Your task to perform on an android device: set the stopwatch Image 0: 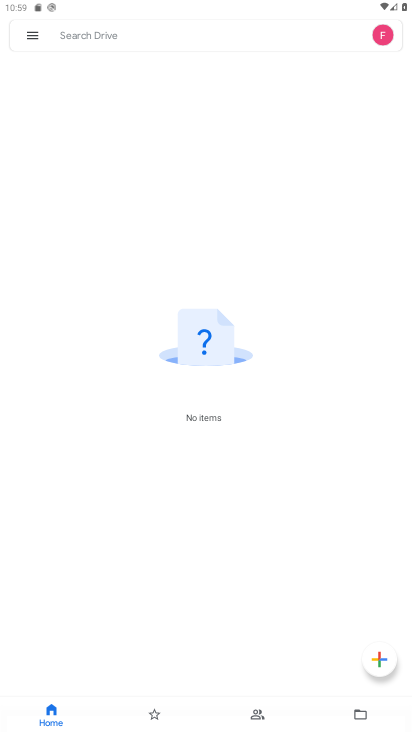
Step 0: press back button
Your task to perform on an android device: set the stopwatch Image 1: 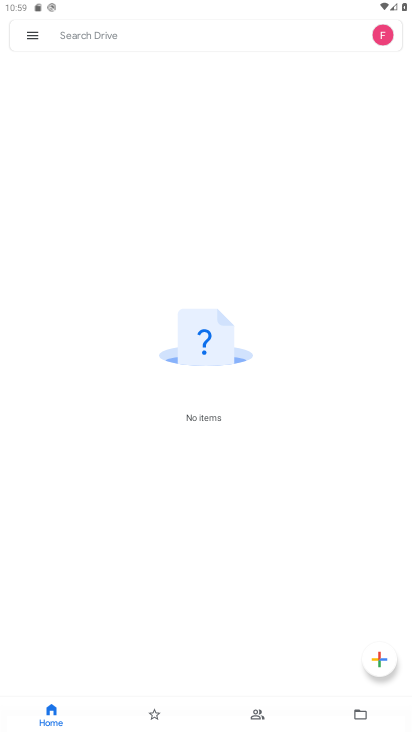
Step 1: press back button
Your task to perform on an android device: set the stopwatch Image 2: 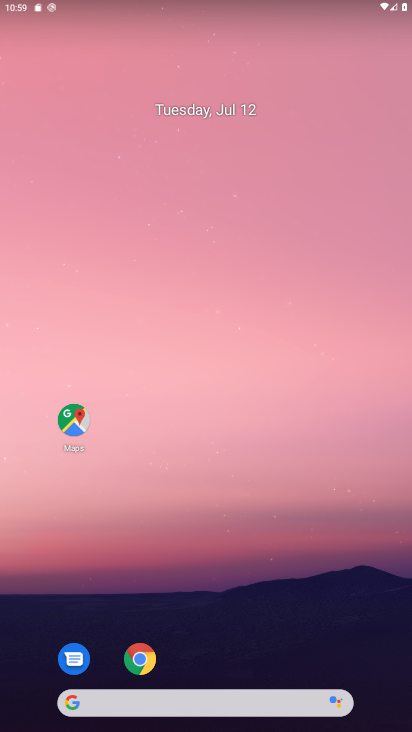
Step 2: press home button
Your task to perform on an android device: set the stopwatch Image 3: 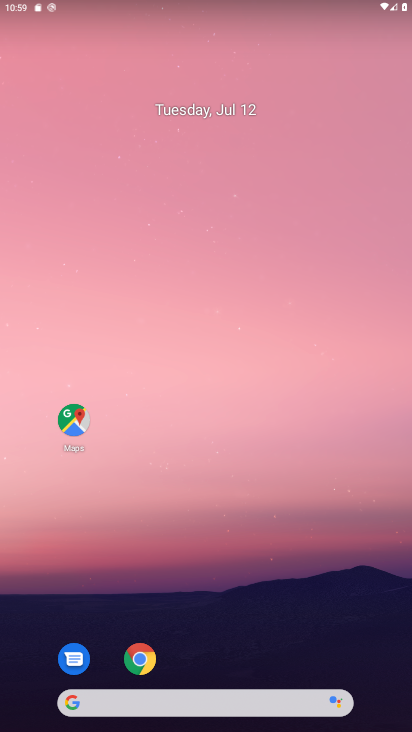
Step 3: press home button
Your task to perform on an android device: set the stopwatch Image 4: 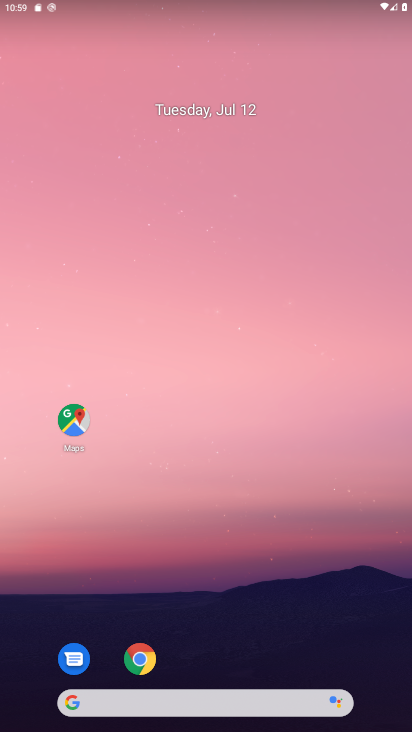
Step 4: drag from (266, 589) to (222, 203)
Your task to perform on an android device: set the stopwatch Image 5: 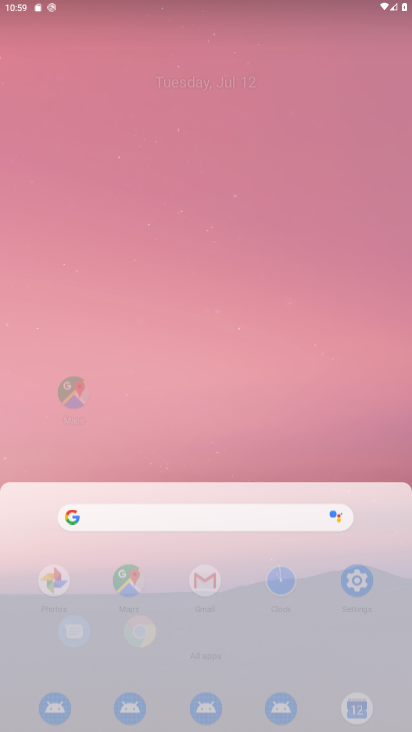
Step 5: drag from (219, 531) to (249, 135)
Your task to perform on an android device: set the stopwatch Image 6: 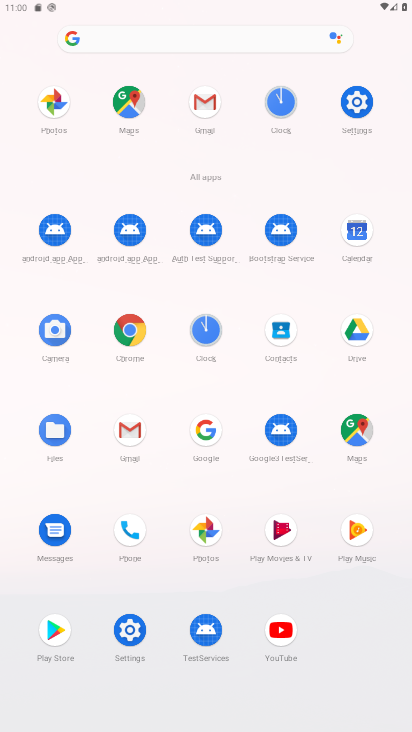
Step 6: click (196, 327)
Your task to perform on an android device: set the stopwatch Image 7: 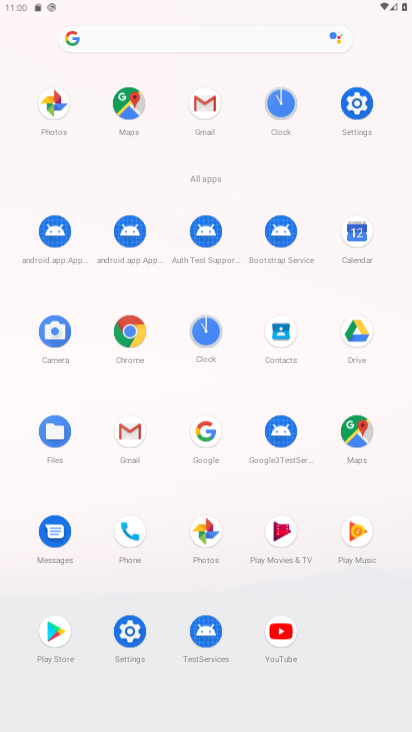
Step 7: click (206, 322)
Your task to perform on an android device: set the stopwatch Image 8: 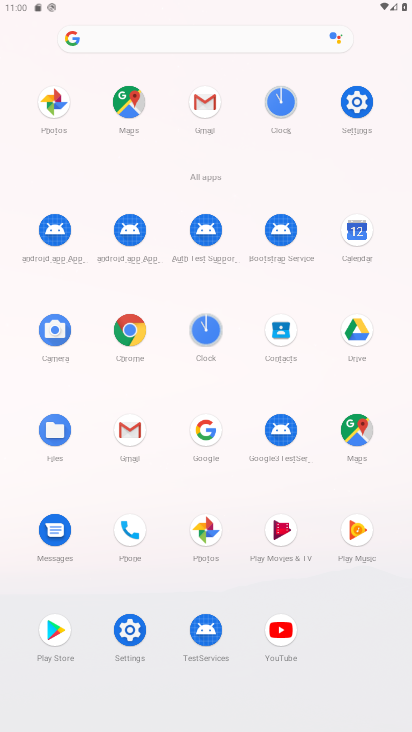
Step 8: click (204, 328)
Your task to perform on an android device: set the stopwatch Image 9: 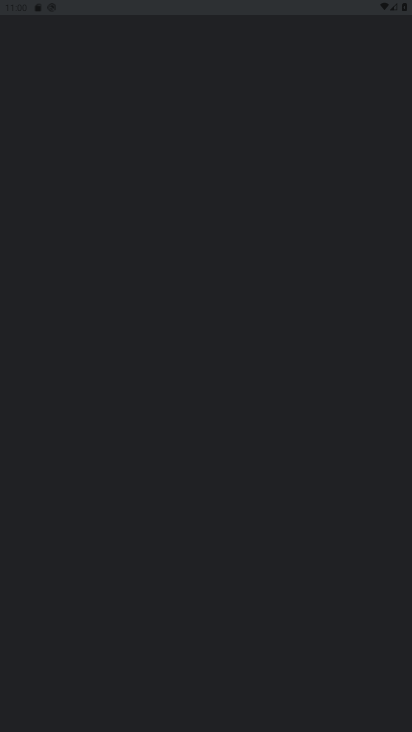
Step 9: click (202, 326)
Your task to perform on an android device: set the stopwatch Image 10: 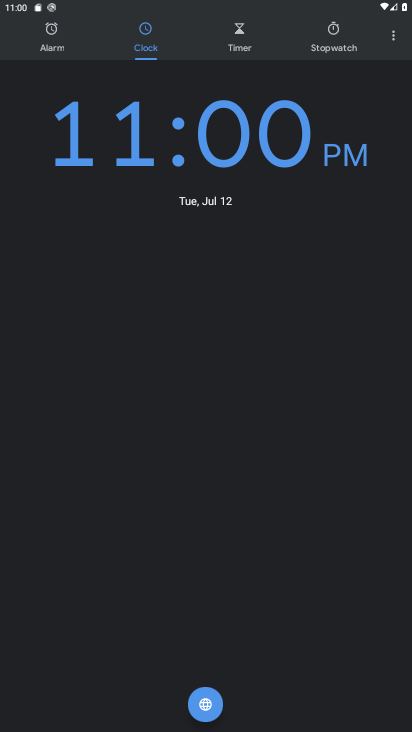
Step 10: click (211, 690)
Your task to perform on an android device: set the stopwatch Image 11: 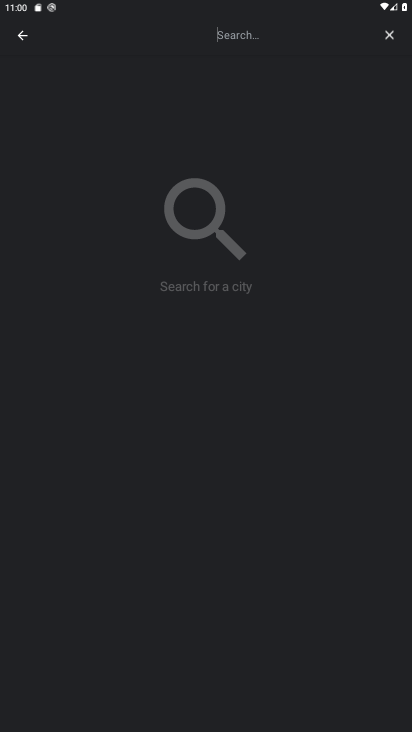
Step 11: drag from (208, 520) to (247, 185)
Your task to perform on an android device: set the stopwatch Image 12: 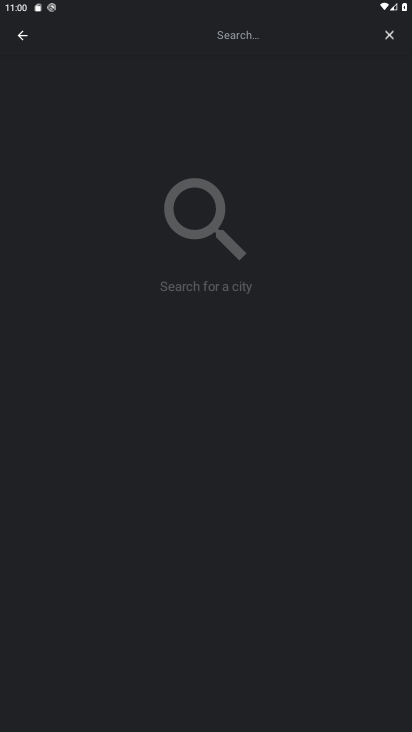
Step 12: drag from (265, 293) to (265, 223)
Your task to perform on an android device: set the stopwatch Image 13: 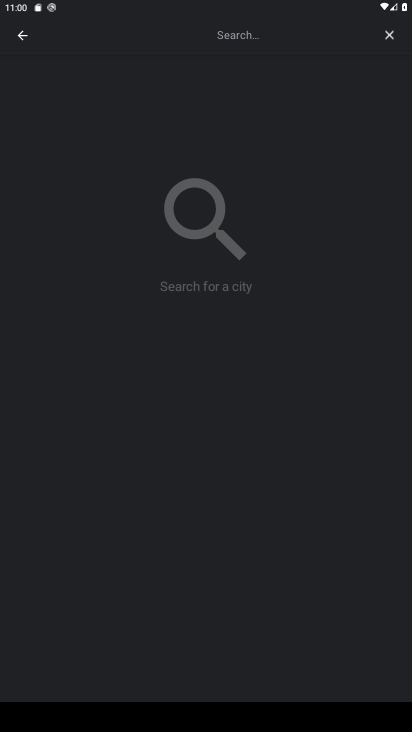
Step 13: drag from (242, 278) to (231, 157)
Your task to perform on an android device: set the stopwatch Image 14: 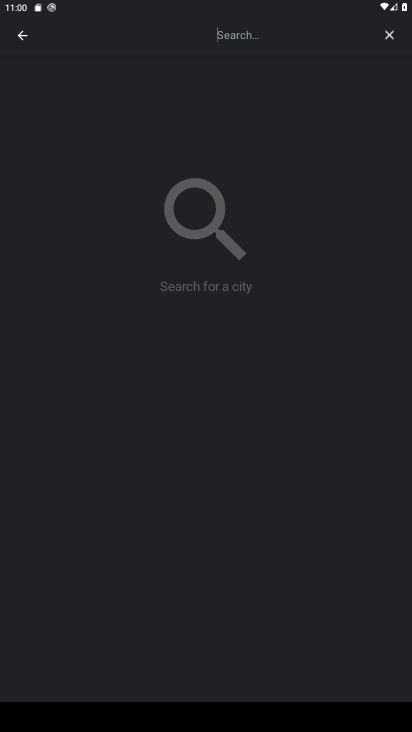
Step 14: drag from (241, 462) to (264, 156)
Your task to perform on an android device: set the stopwatch Image 15: 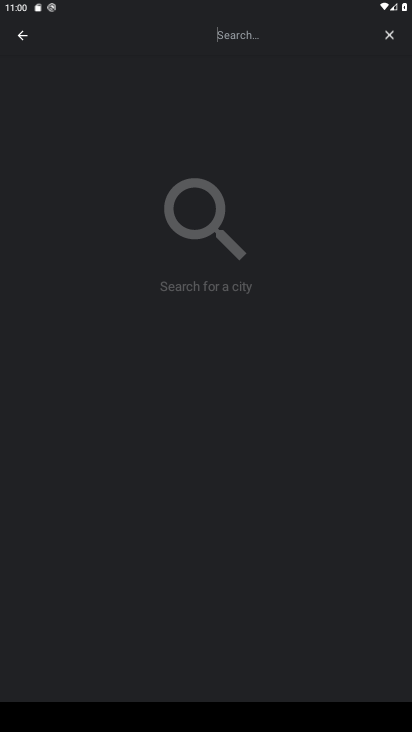
Step 15: click (329, 37)
Your task to perform on an android device: set the stopwatch Image 16: 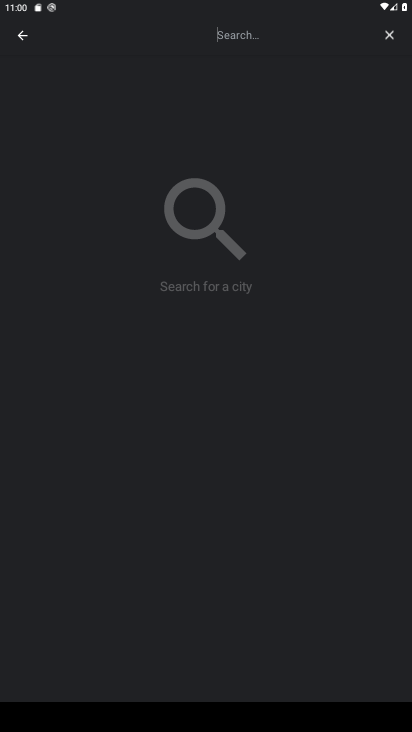
Step 16: click (329, 34)
Your task to perform on an android device: set the stopwatch Image 17: 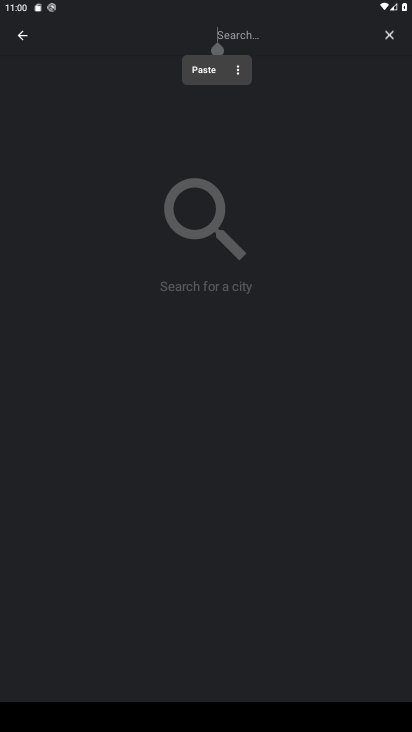
Step 17: click (326, 43)
Your task to perform on an android device: set the stopwatch Image 18: 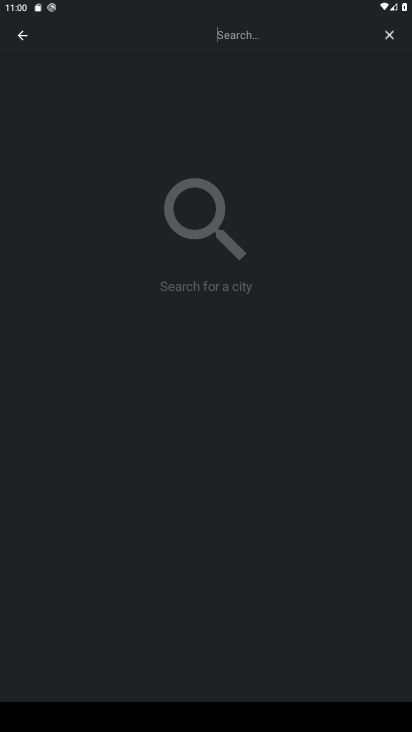
Step 18: click (337, 38)
Your task to perform on an android device: set the stopwatch Image 19: 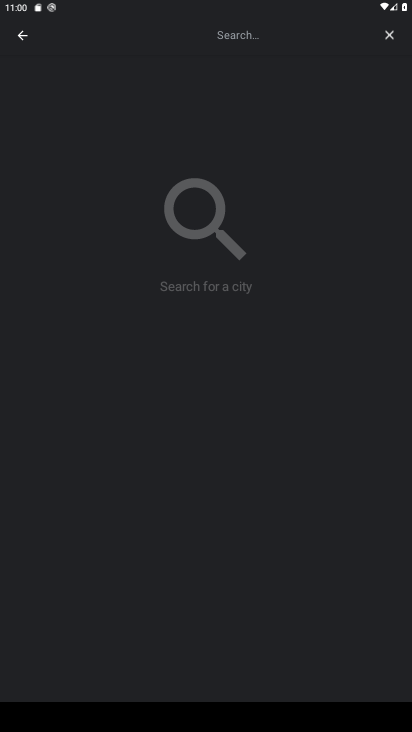
Step 19: click (337, 38)
Your task to perform on an android device: set the stopwatch Image 20: 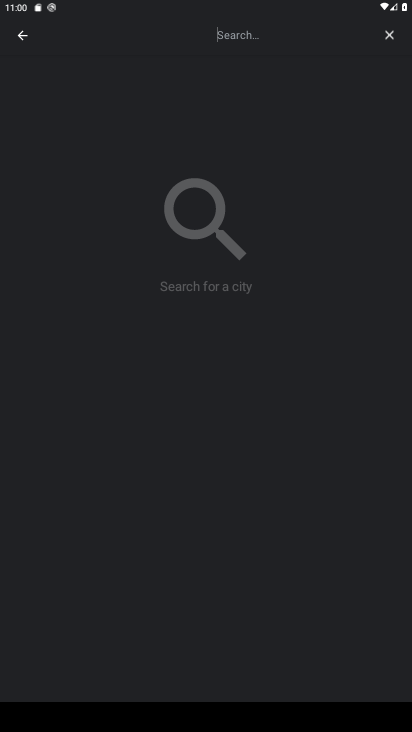
Step 20: click (328, 32)
Your task to perform on an android device: set the stopwatch Image 21: 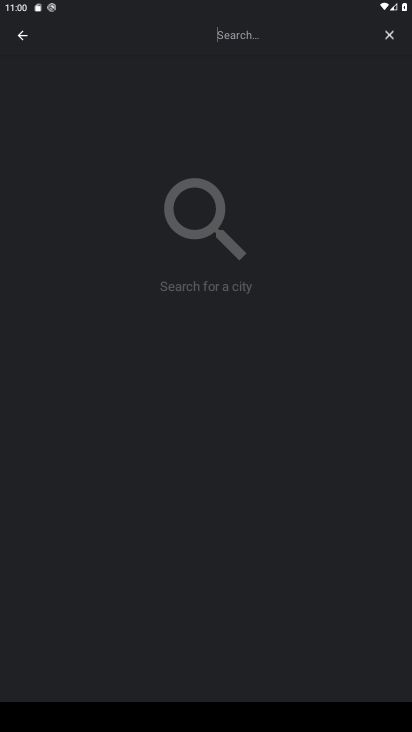
Step 21: click (335, 34)
Your task to perform on an android device: set the stopwatch Image 22: 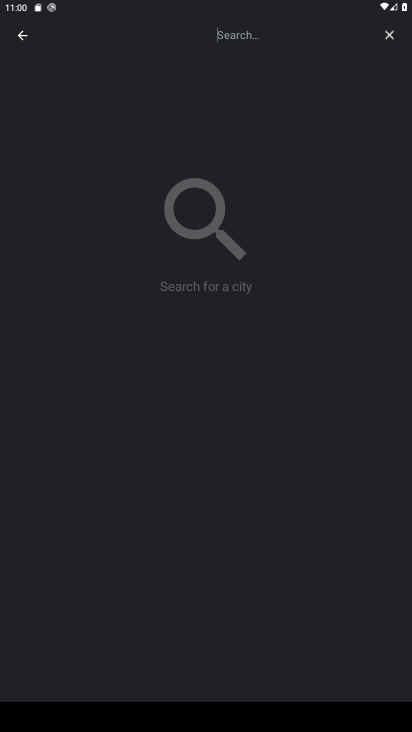
Step 22: click (337, 32)
Your task to perform on an android device: set the stopwatch Image 23: 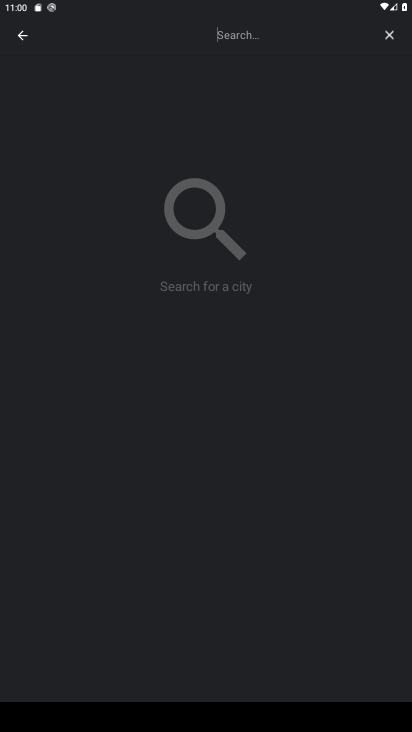
Step 23: task complete